Your task to perform on an android device: install app "Contacts" Image 0: 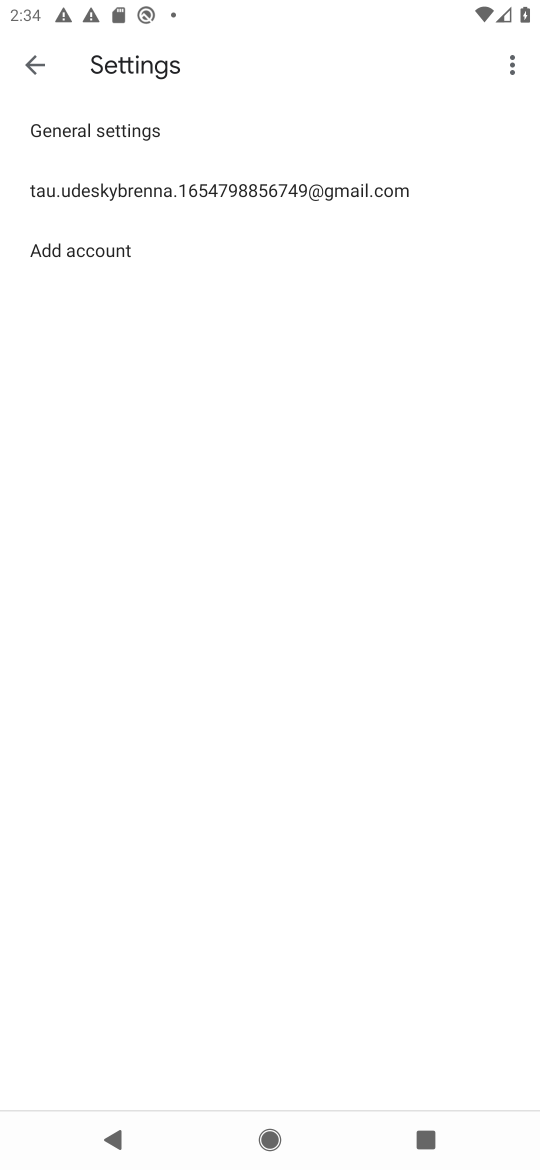
Step 0: press home button
Your task to perform on an android device: install app "Contacts" Image 1: 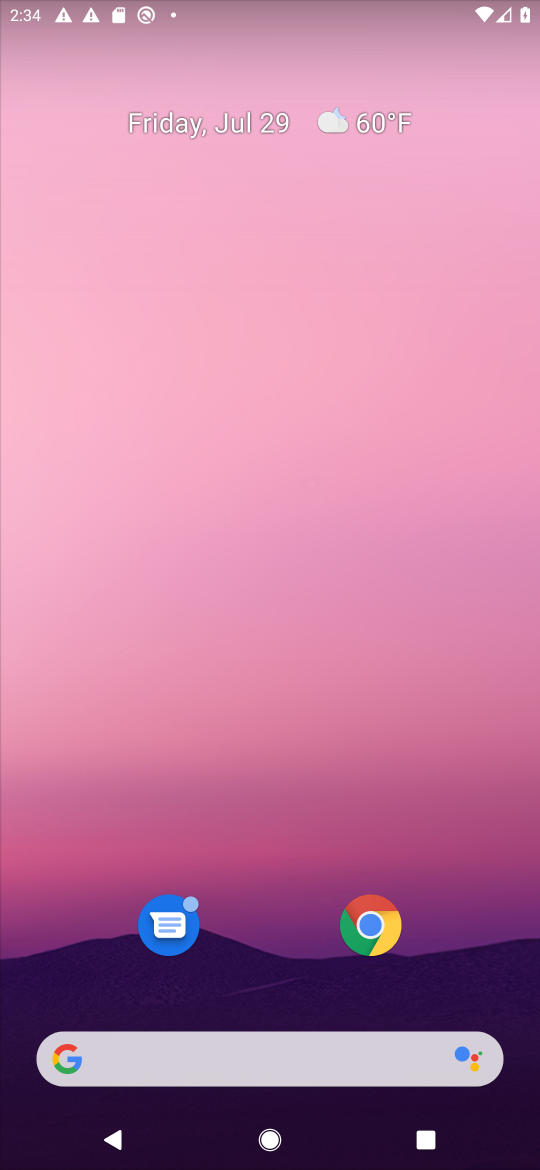
Step 1: drag from (226, 985) to (195, 37)
Your task to perform on an android device: install app "Contacts" Image 2: 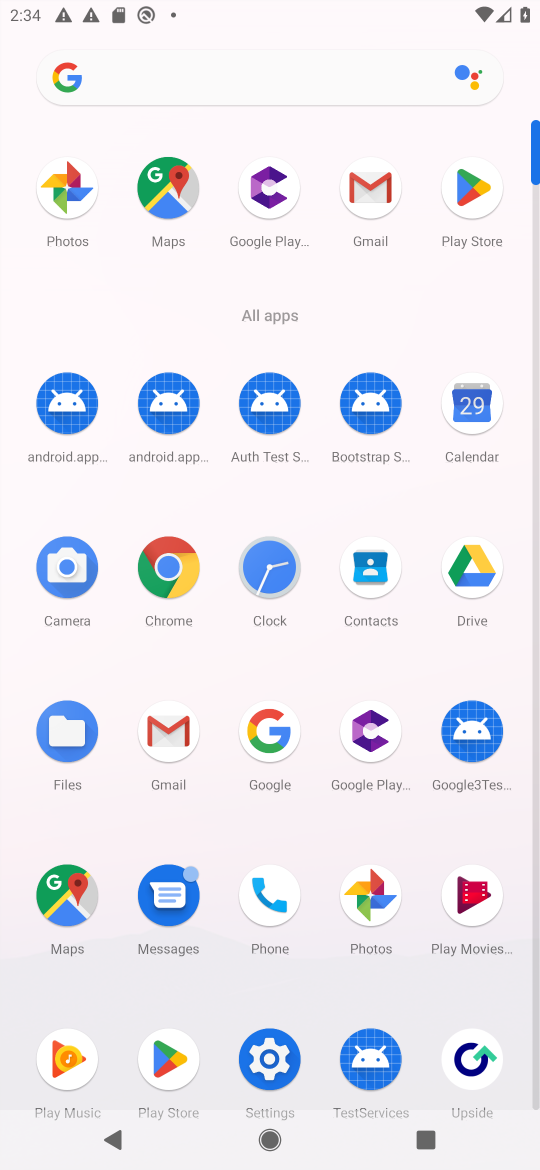
Step 2: click (467, 203)
Your task to perform on an android device: install app "Contacts" Image 3: 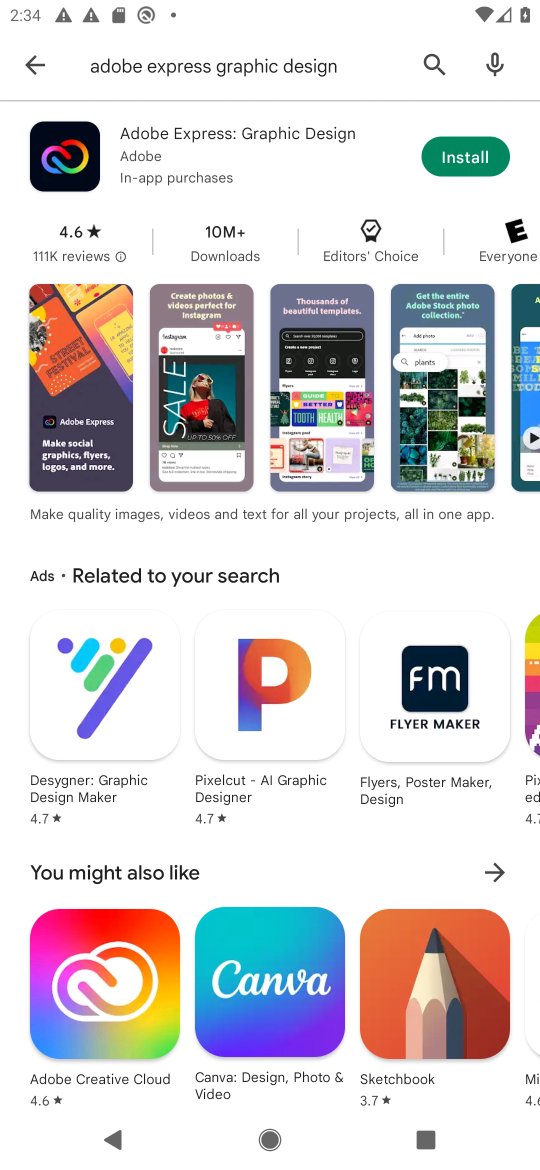
Step 3: click (433, 70)
Your task to perform on an android device: install app "Contacts" Image 4: 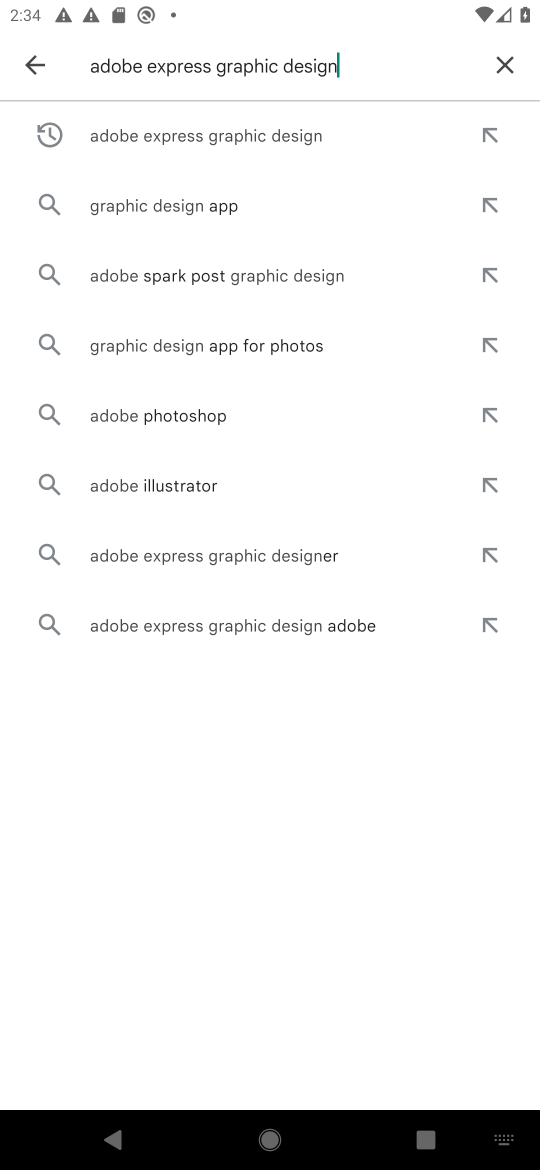
Step 4: click (507, 76)
Your task to perform on an android device: install app "Contacts" Image 5: 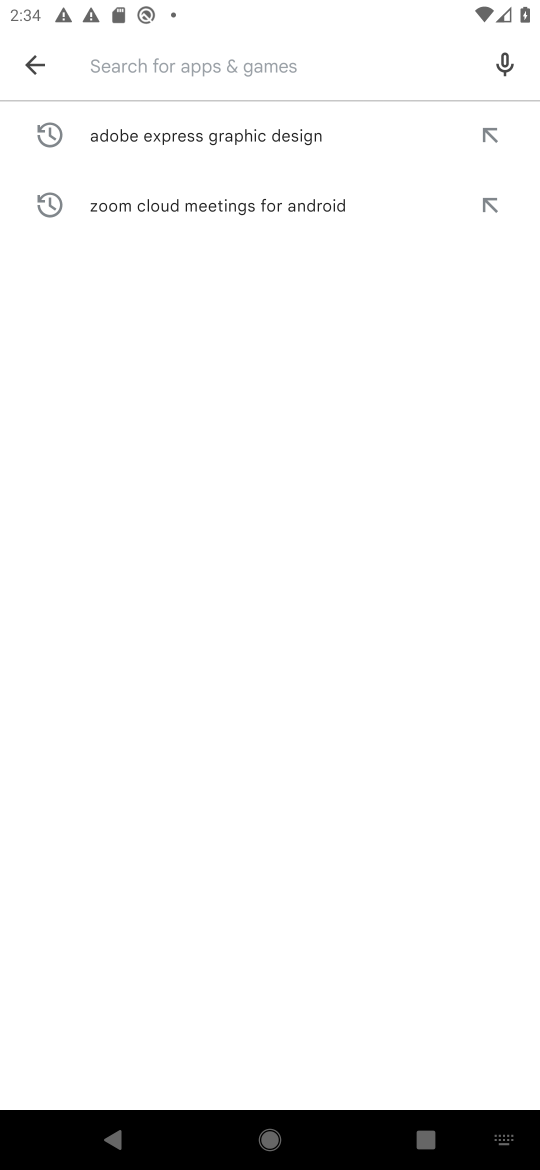
Step 5: type "Contacts"
Your task to perform on an android device: install app "Contacts" Image 6: 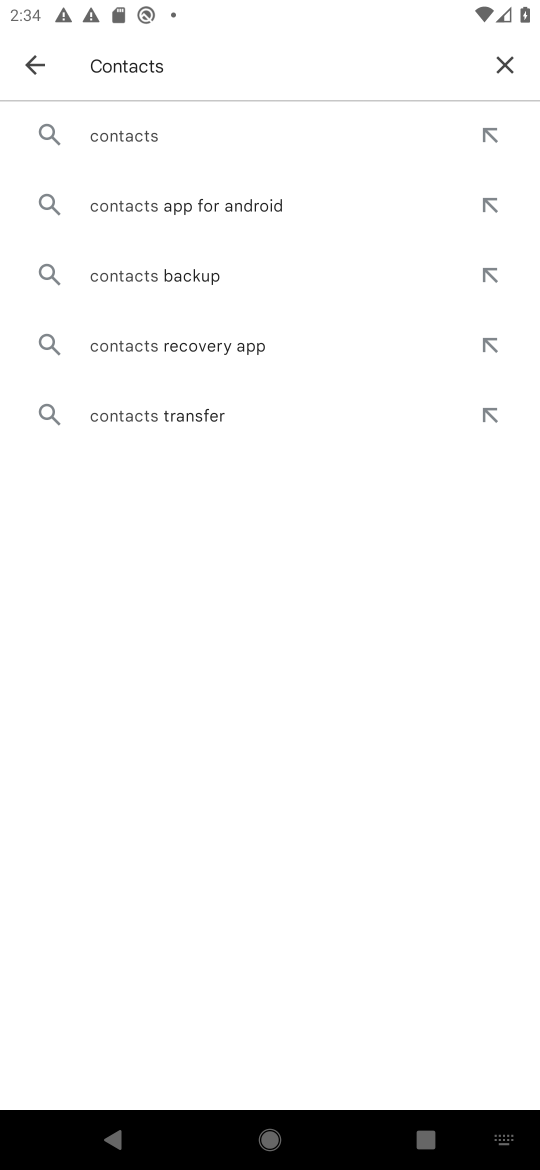
Step 6: click (151, 137)
Your task to perform on an android device: install app "Contacts" Image 7: 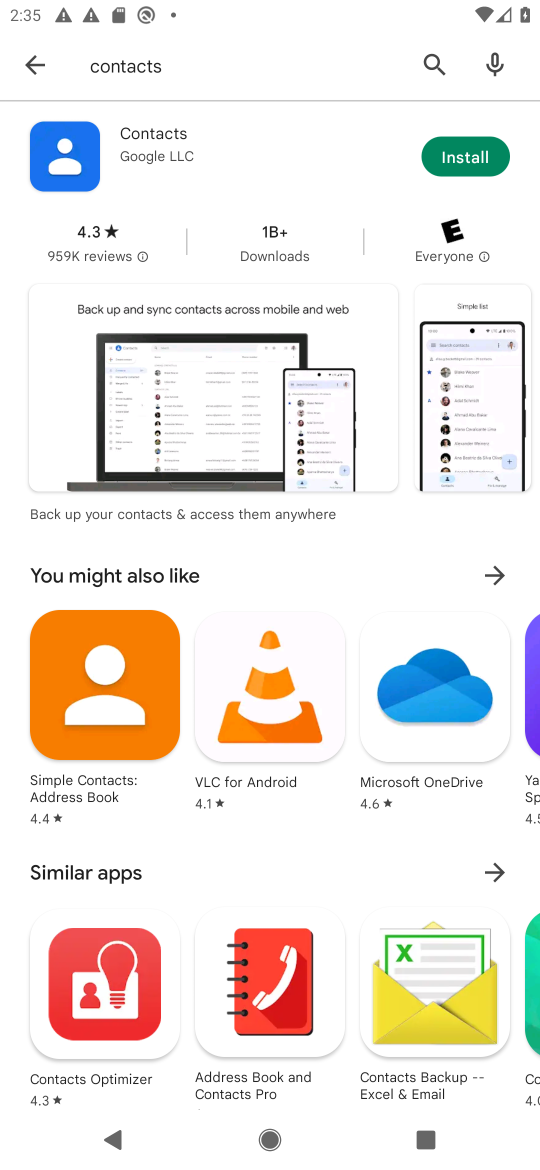
Step 7: click (474, 164)
Your task to perform on an android device: install app "Contacts" Image 8: 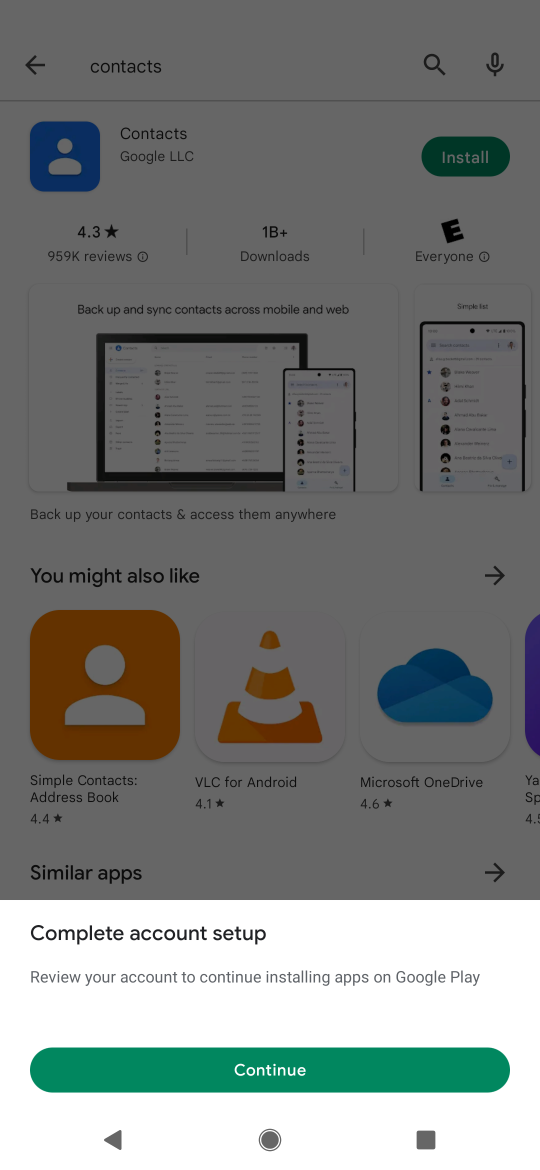
Step 8: click (286, 1066)
Your task to perform on an android device: install app "Contacts" Image 9: 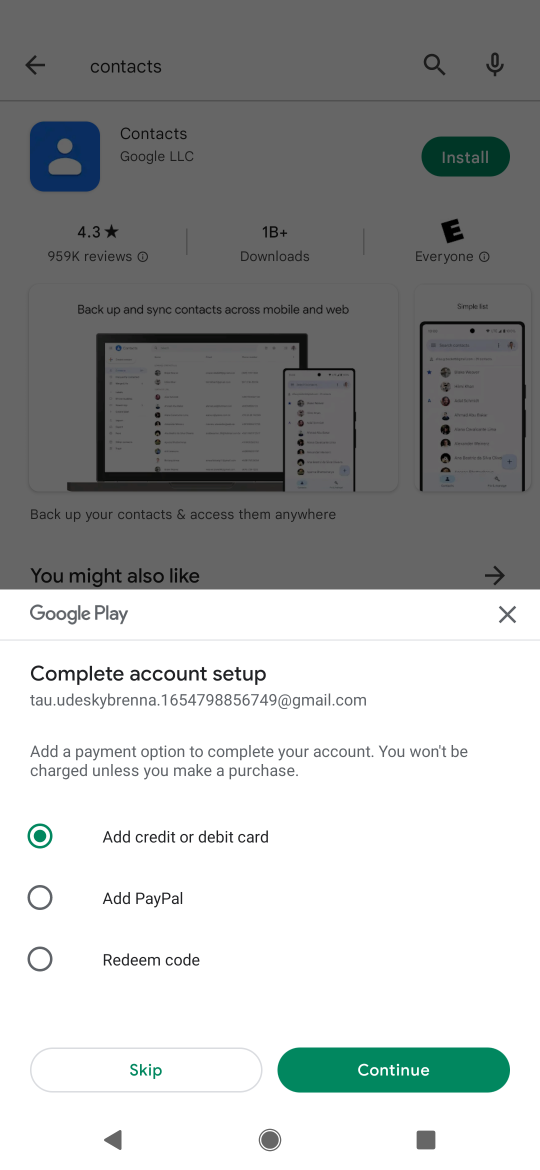
Step 9: click (192, 1074)
Your task to perform on an android device: install app "Contacts" Image 10: 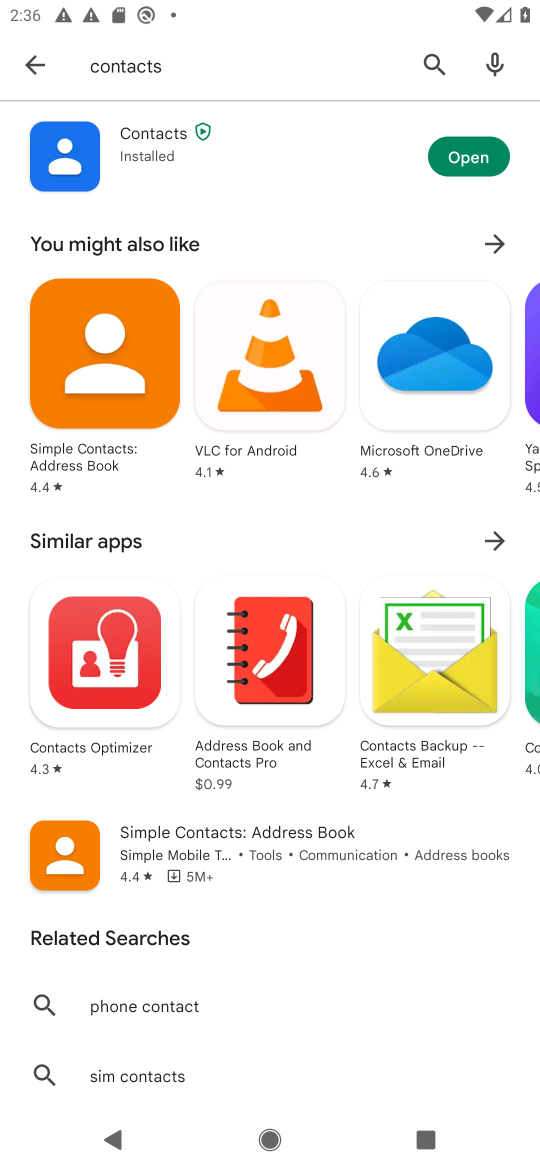
Step 10: task complete